Your task to perform on an android device: turn on notifications settings in the gmail app Image 0: 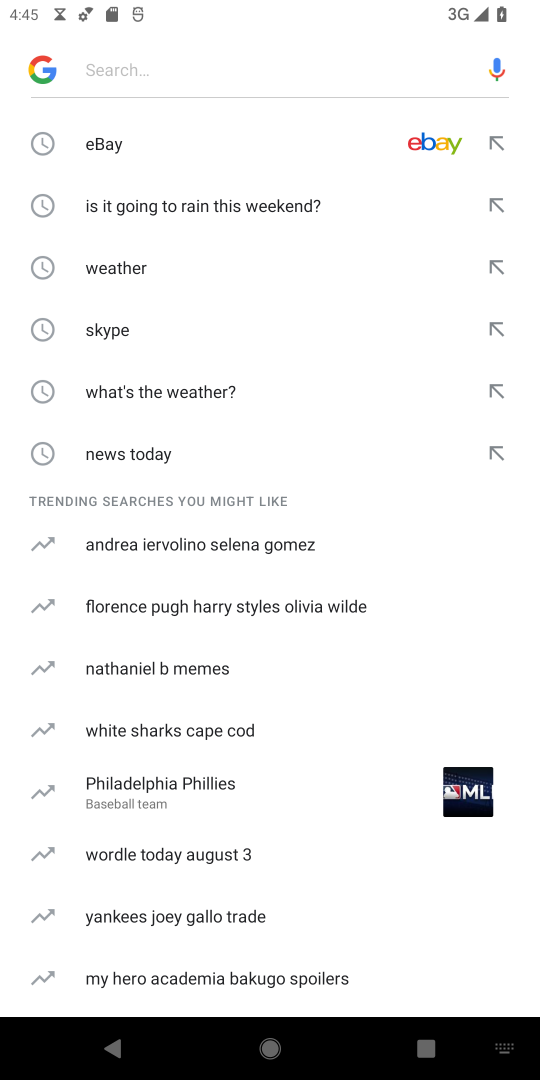
Step 0: press home button
Your task to perform on an android device: turn on notifications settings in the gmail app Image 1: 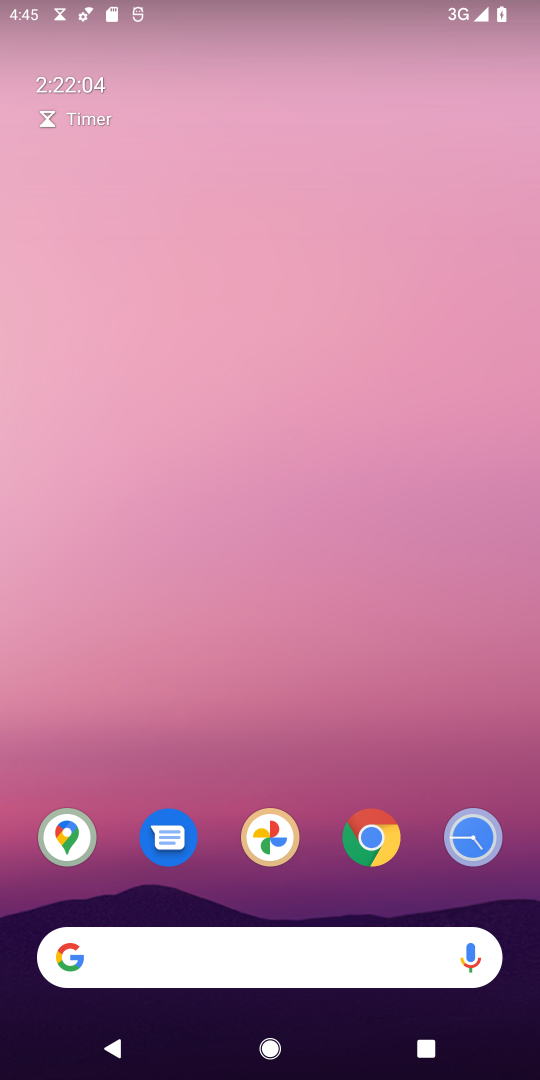
Step 1: drag from (228, 907) to (11, 332)
Your task to perform on an android device: turn on notifications settings in the gmail app Image 2: 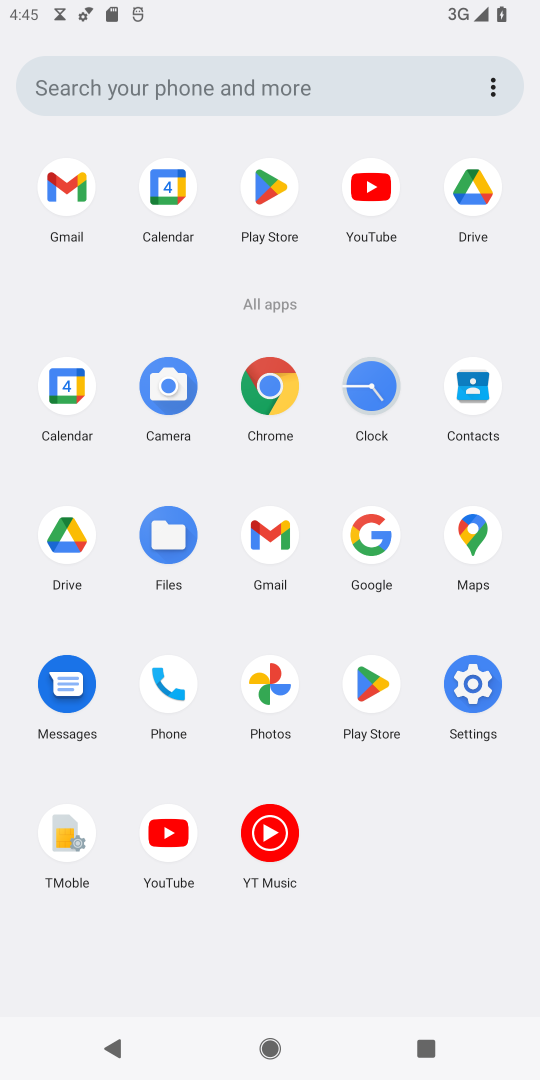
Step 2: click (270, 532)
Your task to perform on an android device: turn on notifications settings in the gmail app Image 3: 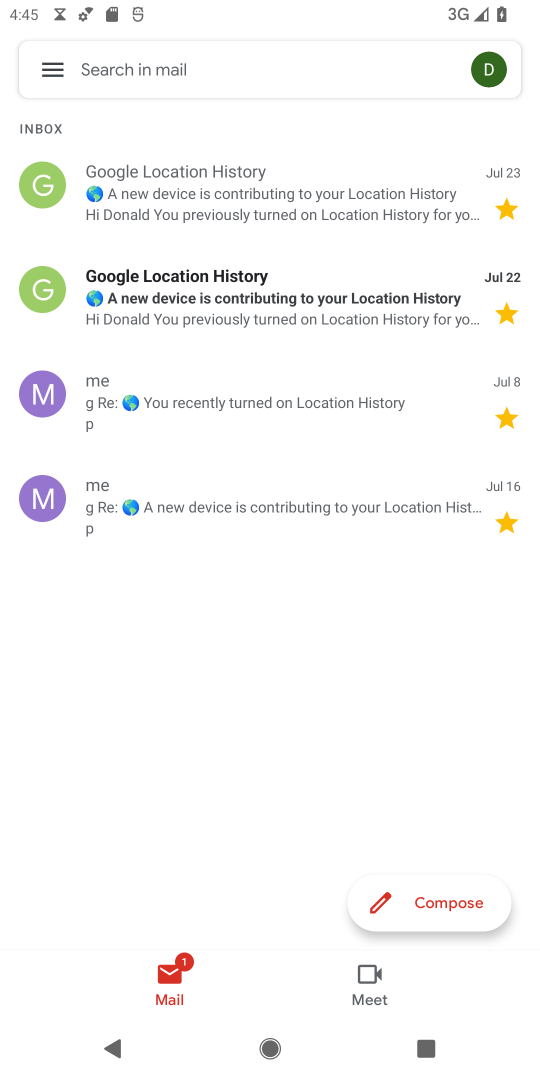
Step 3: click (52, 76)
Your task to perform on an android device: turn on notifications settings in the gmail app Image 4: 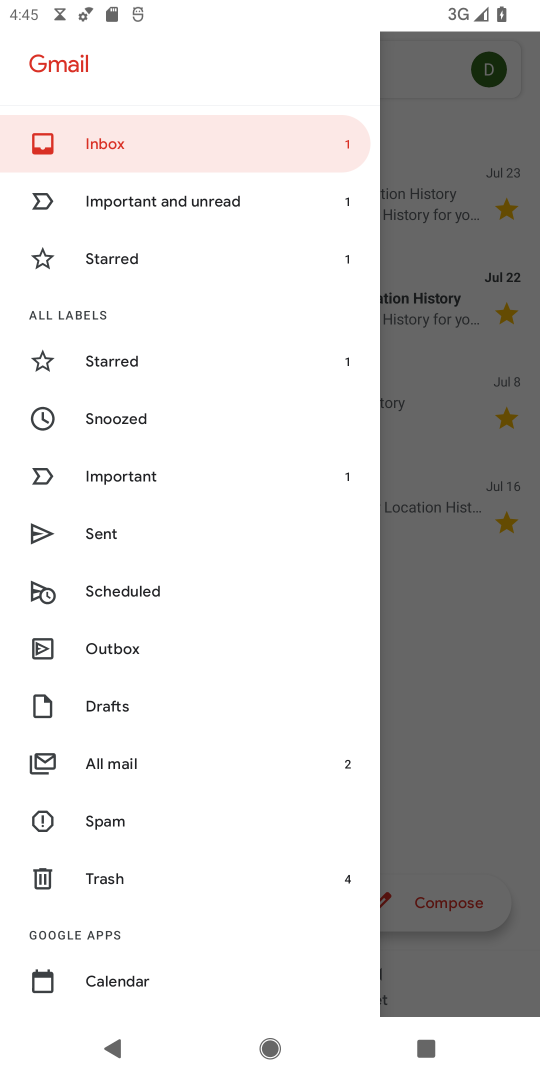
Step 4: drag from (70, 933) to (20, 355)
Your task to perform on an android device: turn on notifications settings in the gmail app Image 5: 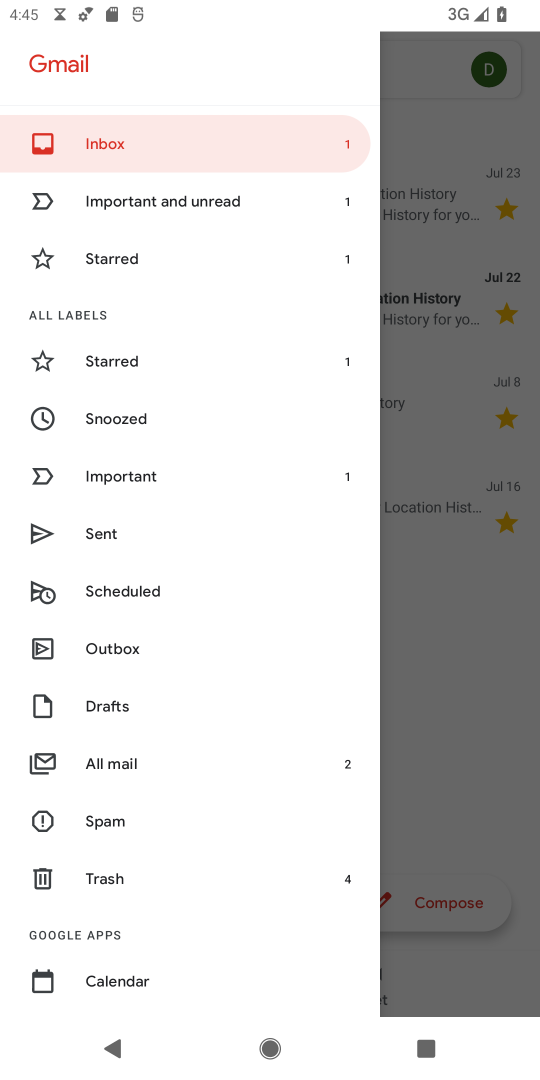
Step 5: drag from (133, 878) to (113, 91)
Your task to perform on an android device: turn on notifications settings in the gmail app Image 6: 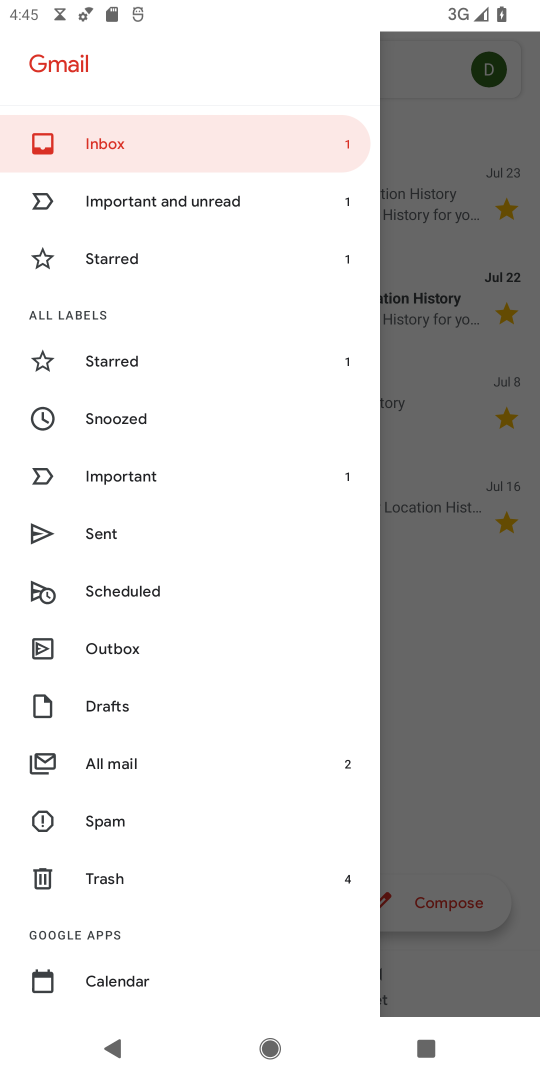
Step 6: drag from (174, 960) to (129, 574)
Your task to perform on an android device: turn on notifications settings in the gmail app Image 7: 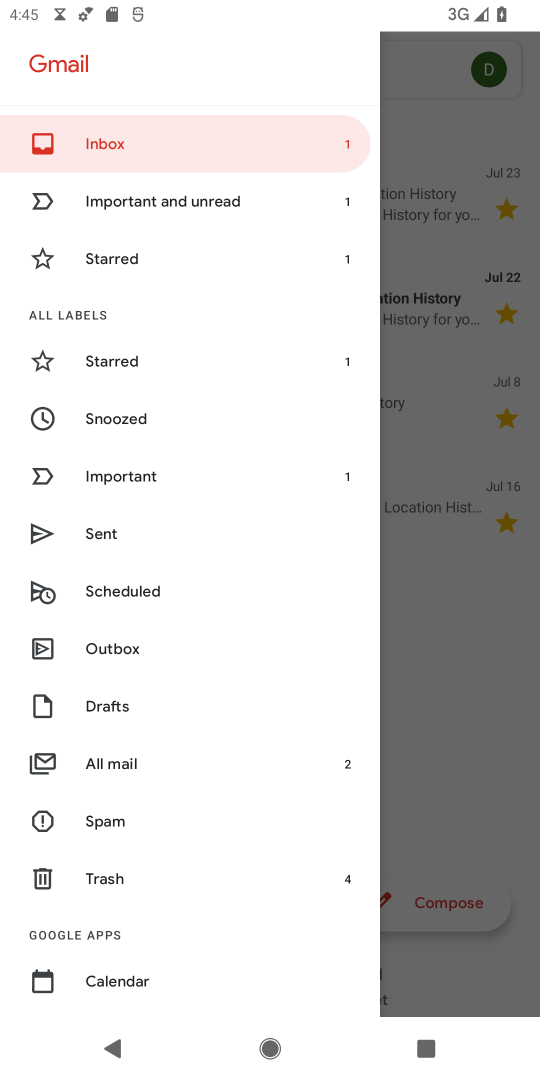
Step 7: drag from (166, 868) to (166, 265)
Your task to perform on an android device: turn on notifications settings in the gmail app Image 8: 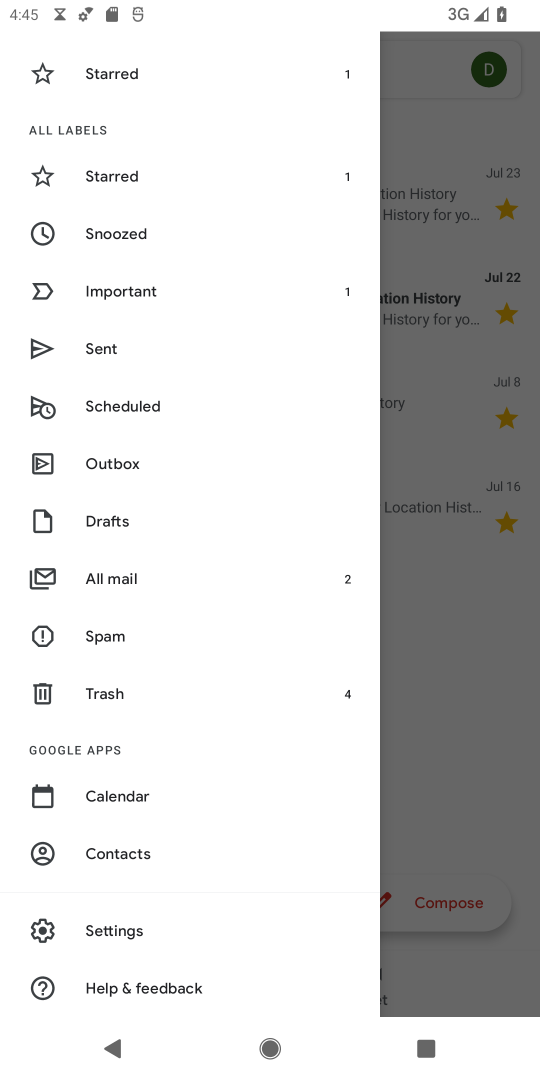
Step 8: click (152, 922)
Your task to perform on an android device: turn on notifications settings in the gmail app Image 9: 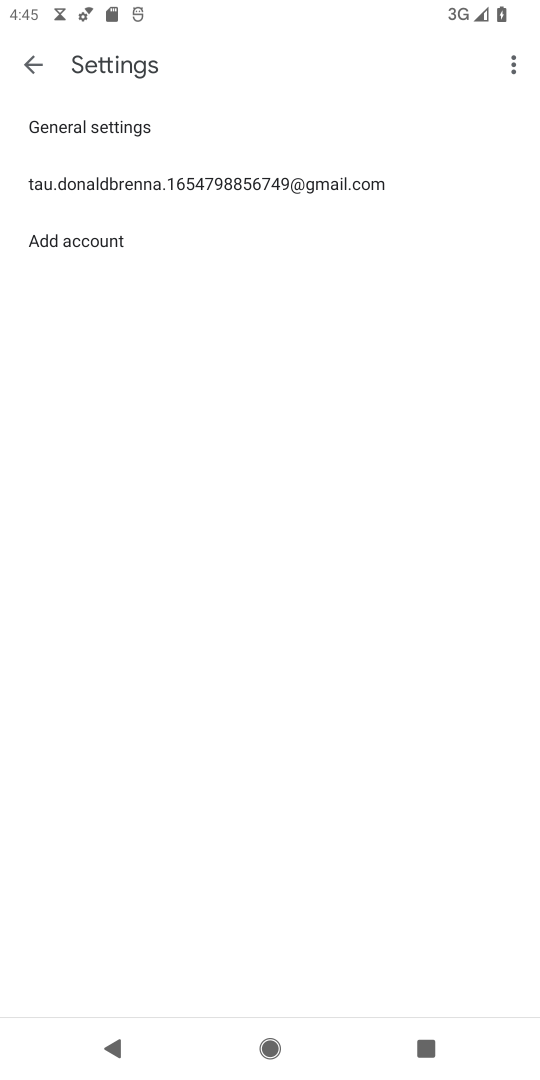
Step 9: click (329, 188)
Your task to perform on an android device: turn on notifications settings in the gmail app Image 10: 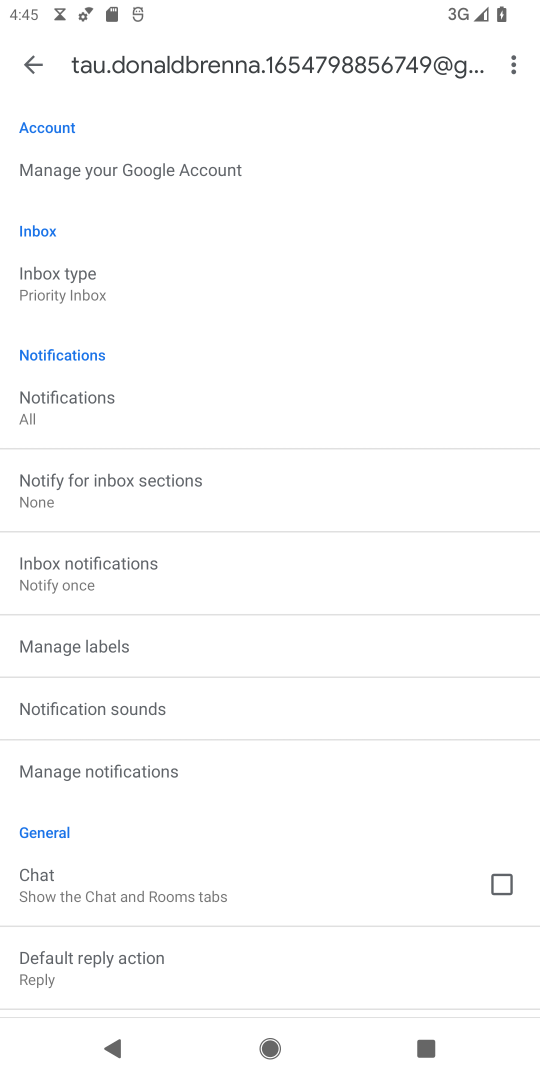
Step 10: click (181, 785)
Your task to perform on an android device: turn on notifications settings in the gmail app Image 11: 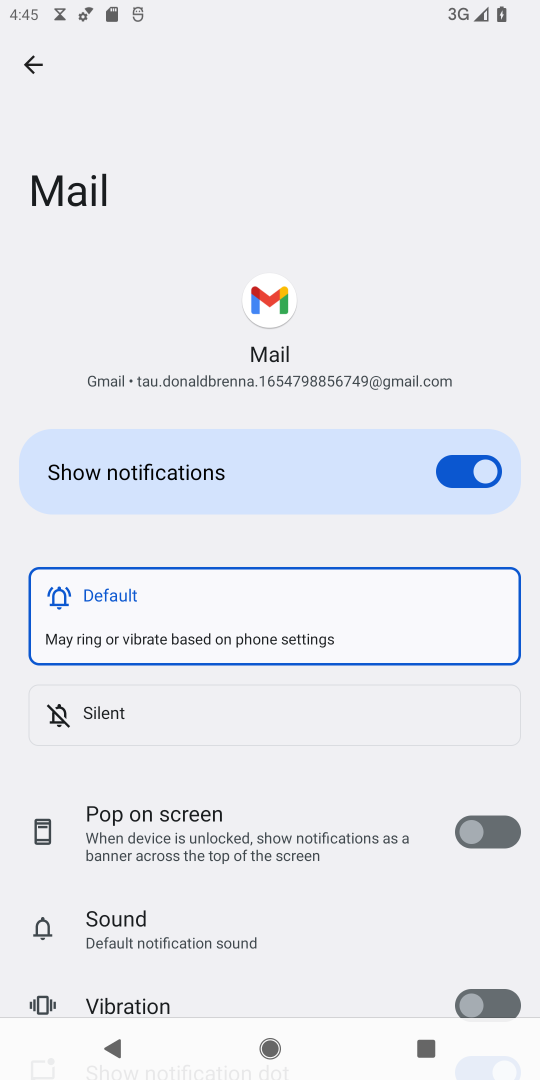
Step 11: task complete